Your task to perform on an android device: turn off priority inbox in the gmail app Image 0: 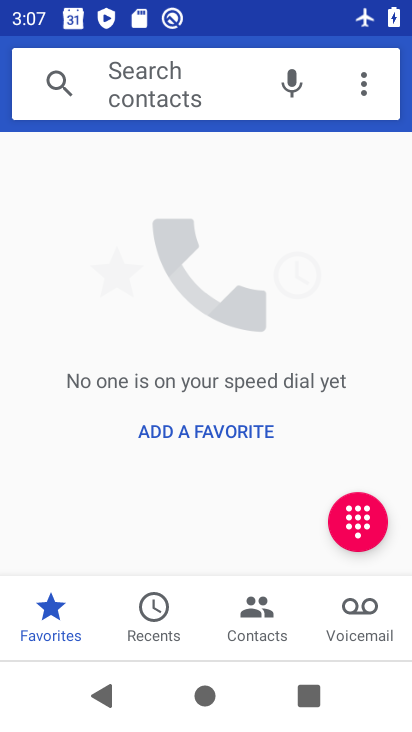
Step 0: press home button
Your task to perform on an android device: turn off priority inbox in the gmail app Image 1: 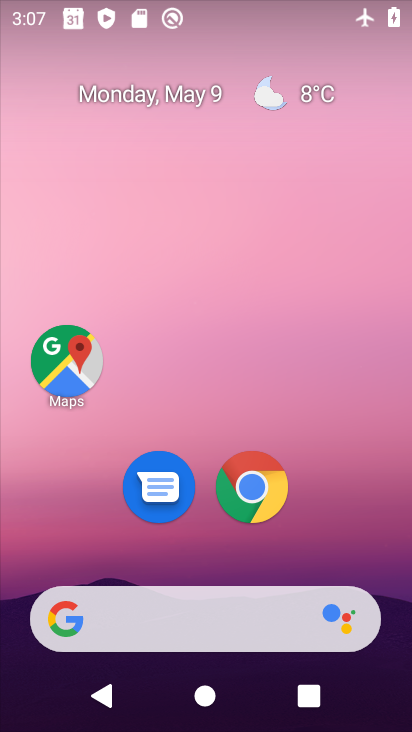
Step 1: drag from (206, 547) to (211, 70)
Your task to perform on an android device: turn off priority inbox in the gmail app Image 2: 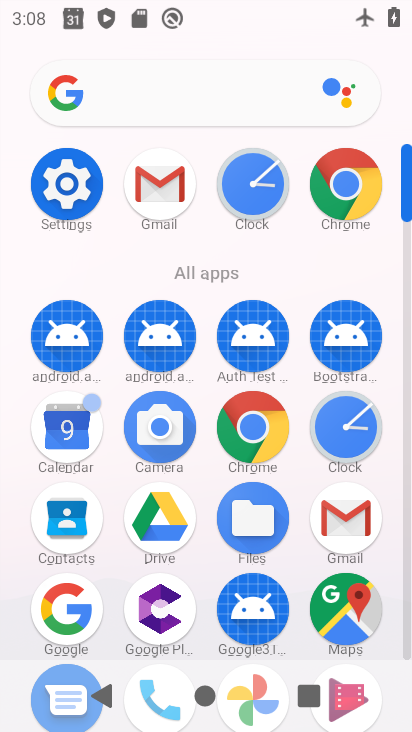
Step 2: click (347, 520)
Your task to perform on an android device: turn off priority inbox in the gmail app Image 3: 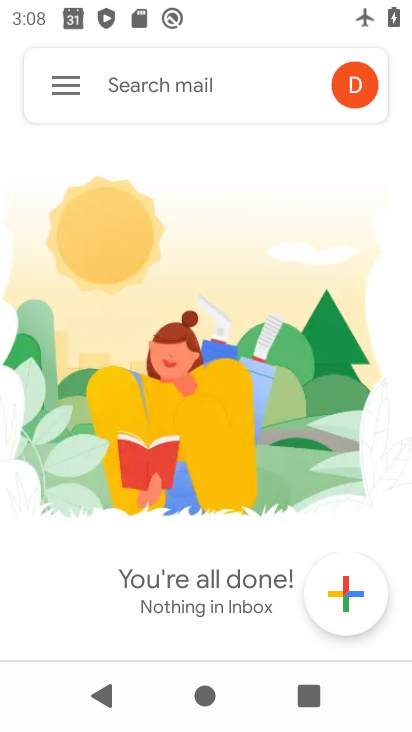
Step 3: click (51, 86)
Your task to perform on an android device: turn off priority inbox in the gmail app Image 4: 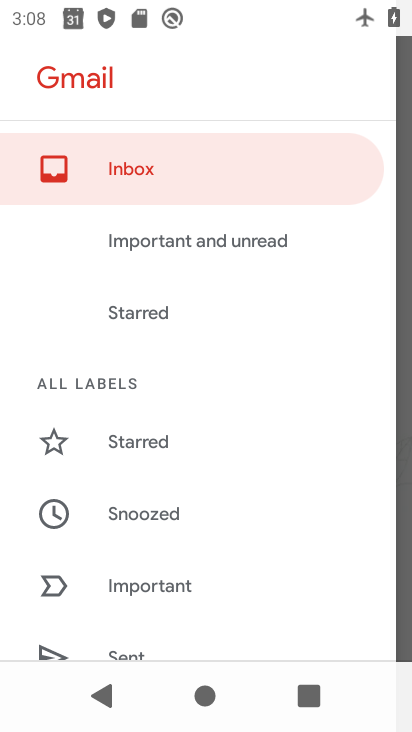
Step 4: drag from (200, 616) to (204, 69)
Your task to perform on an android device: turn off priority inbox in the gmail app Image 5: 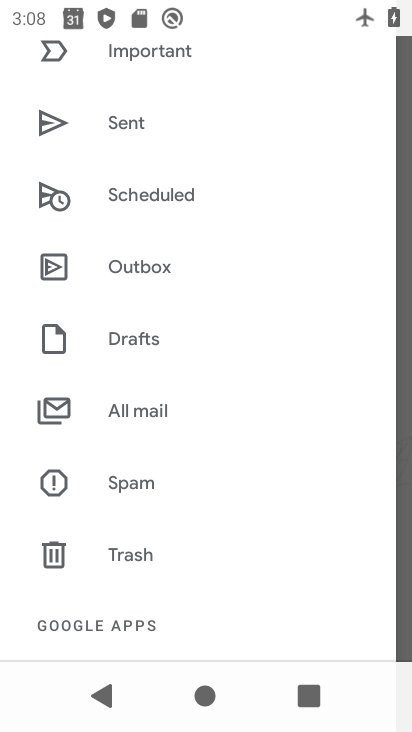
Step 5: drag from (169, 586) to (180, 127)
Your task to perform on an android device: turn off priority inbox in the gmail app Image 6: 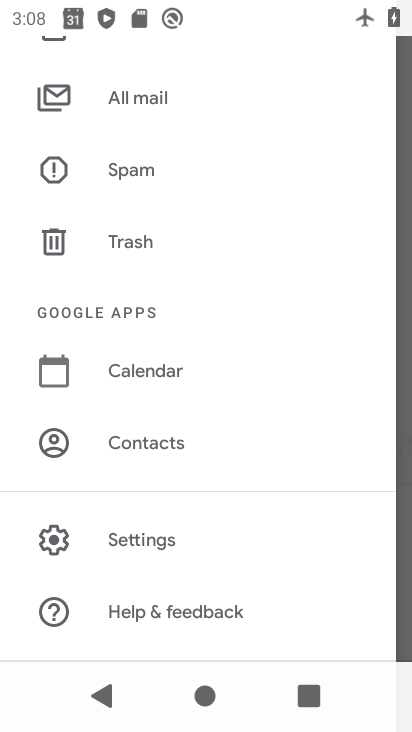
Step 6: click (180, 539)
Your task to perform on an android device: turn off priority inbox in the gmail app Image 7: 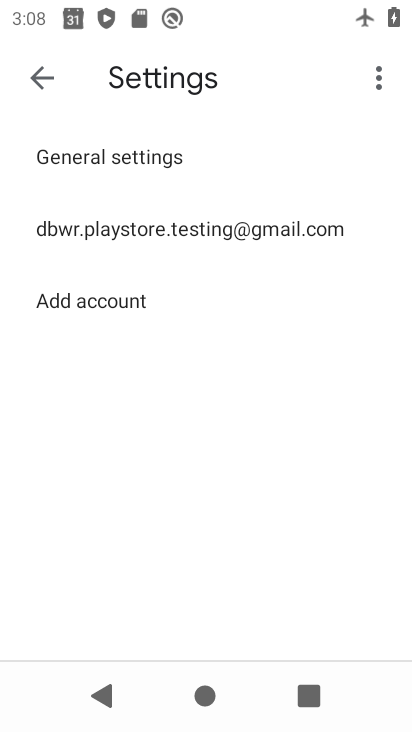
Step 7: click (210, 232)
Your task to perform on an android device: turn off priority inbox in the gmail app Image 8: 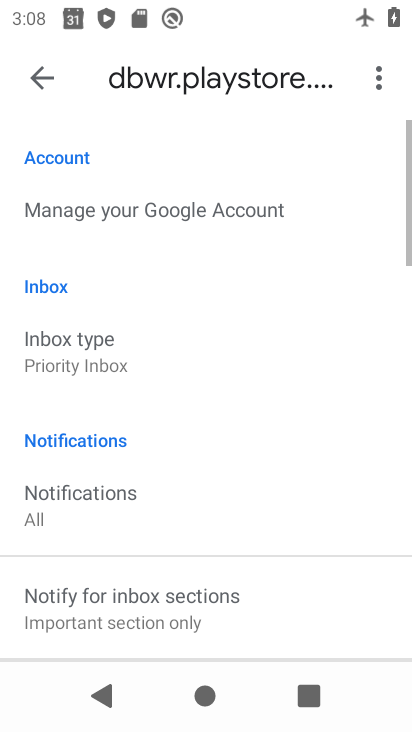
Step 8: click (105, 351)
Your task to perform on an android device: turn off priority inbox in the gmail app Image 9: 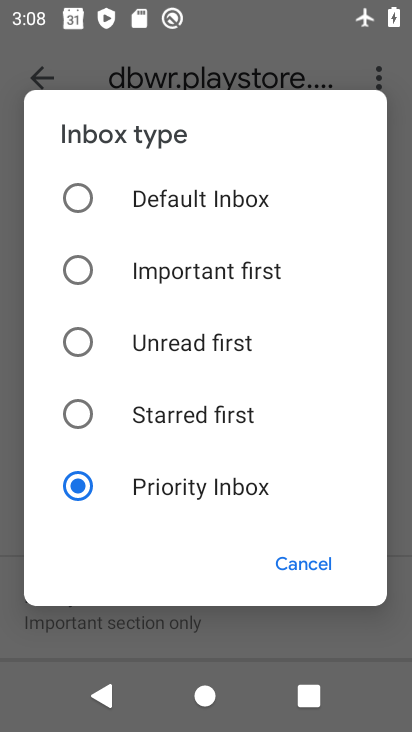
Step 9: click (72, 198)
Your task to perform on an android device: turn off priority inbox in the gmail app Image 10: 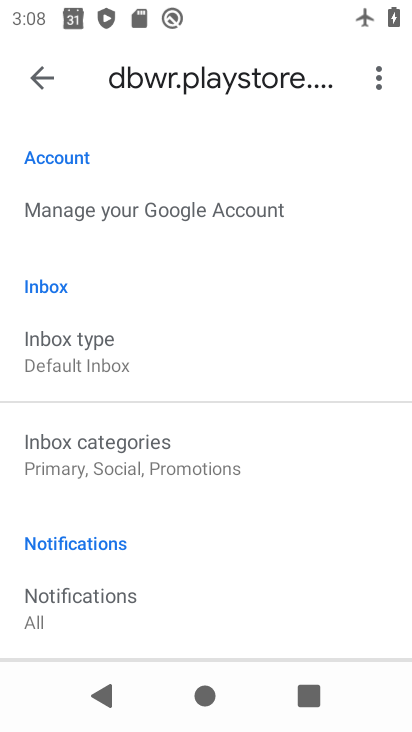
Step 10: task complete